Your task to perform on an android device: Open Android settings Image 0: 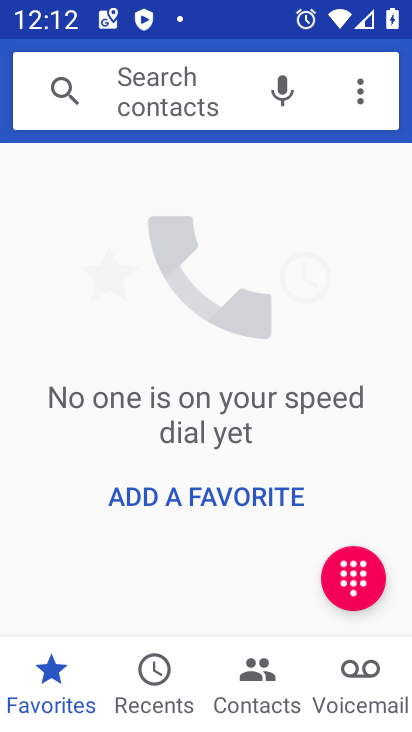
Step 0: press home button
Your task to perform on an android device: Open Android settings Image 1: 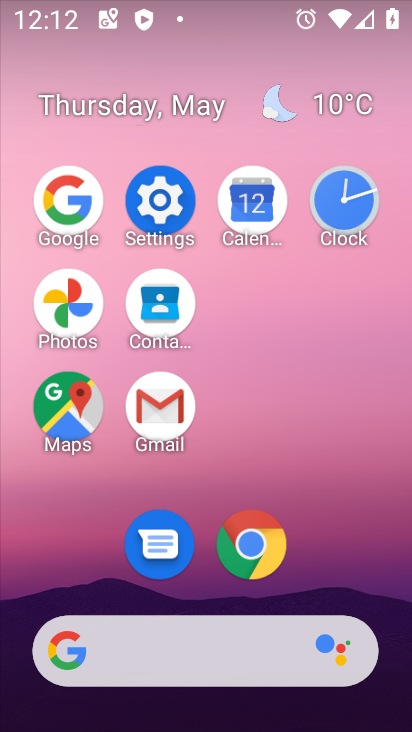
Step 1: click (163, 206)
Your task to perform on an android device: Open Android settings Image 2: 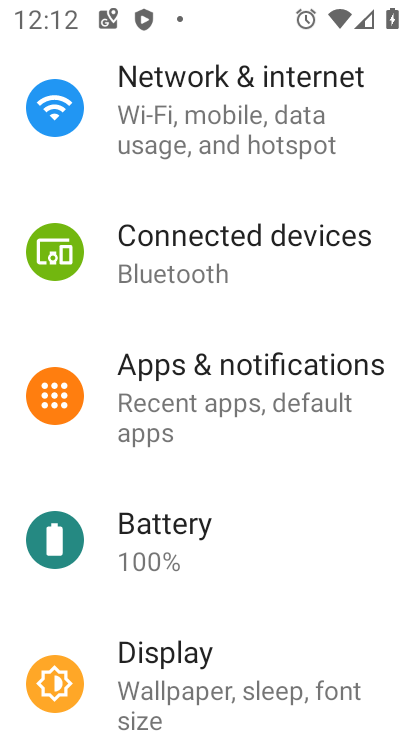
Step 2: task complete